Your task to perform on an android device: turn off improve location accuracy Image 0: 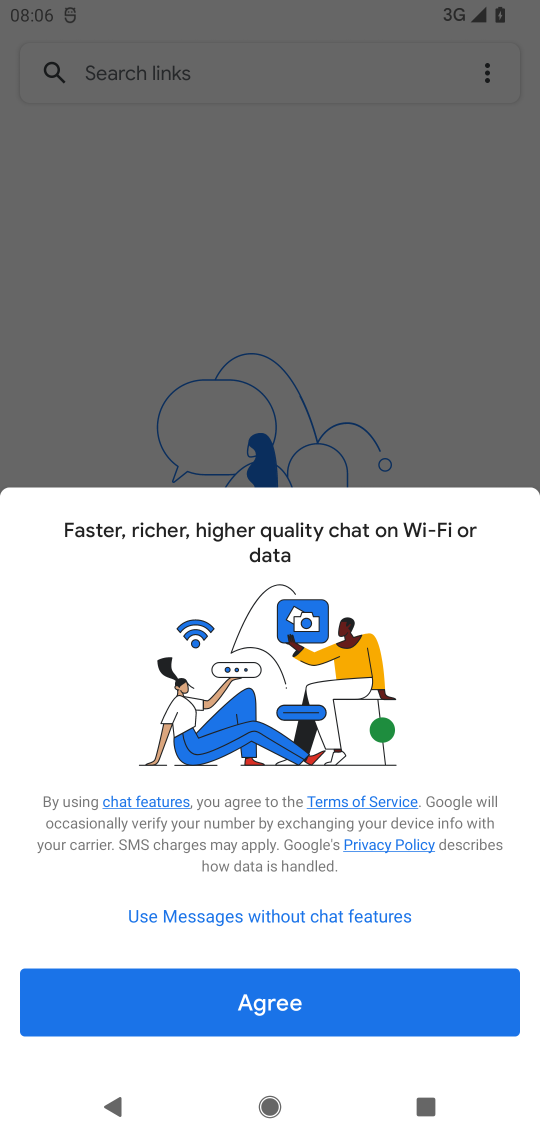
Step 0: press home button
Your task to perform on an android device: turn off improve location accuracy Image 1: 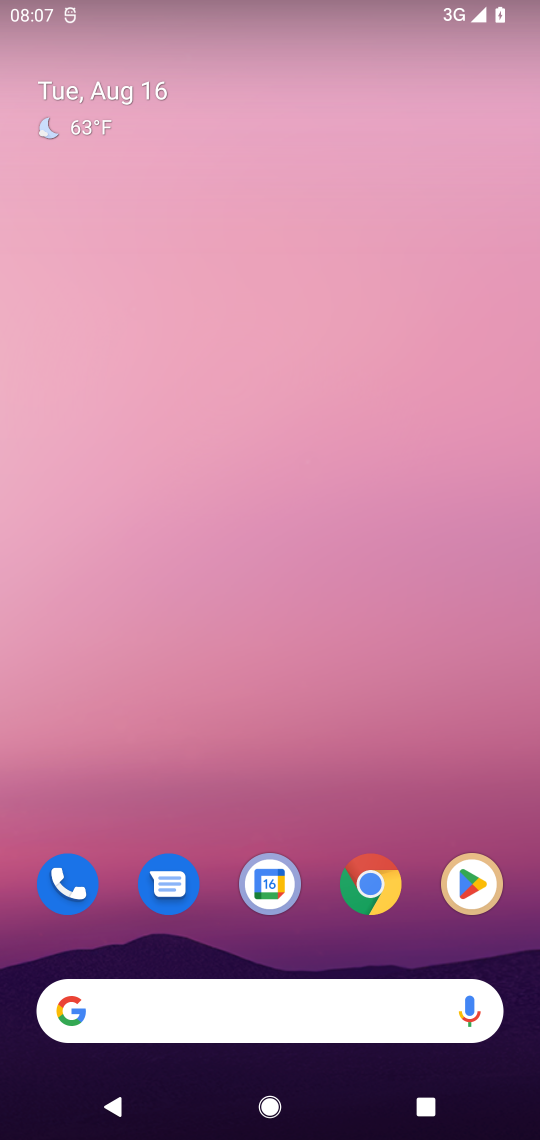
Step 1: drag from (417, 822) to (326, 169)
Your task to perform on an android device: turn off improve location accuracy Image 2: 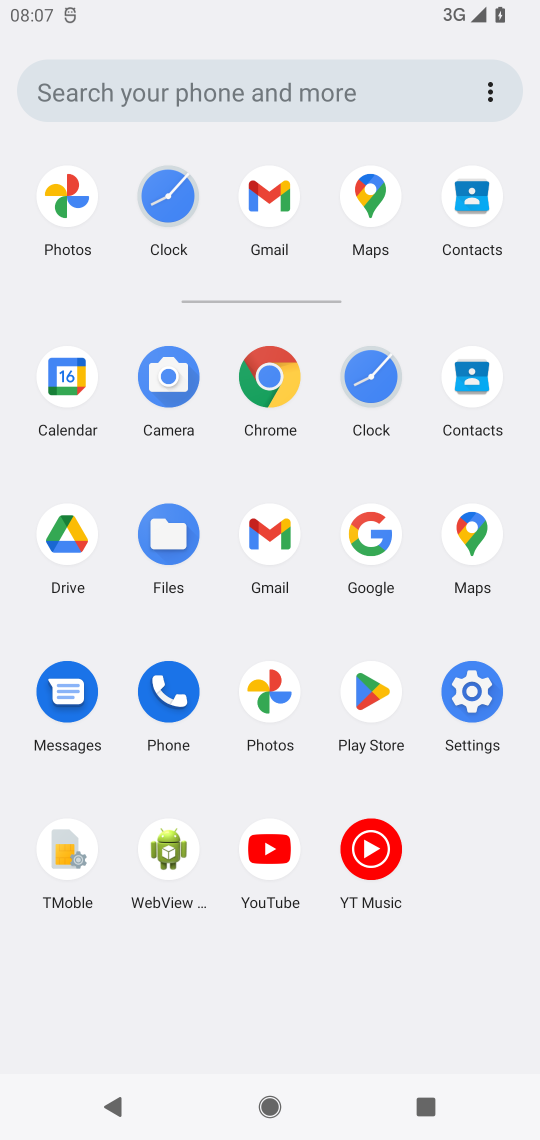
Step 2: click (466, 678)
Your task to perform on an android device: turn off improve location accuracy Image 3: 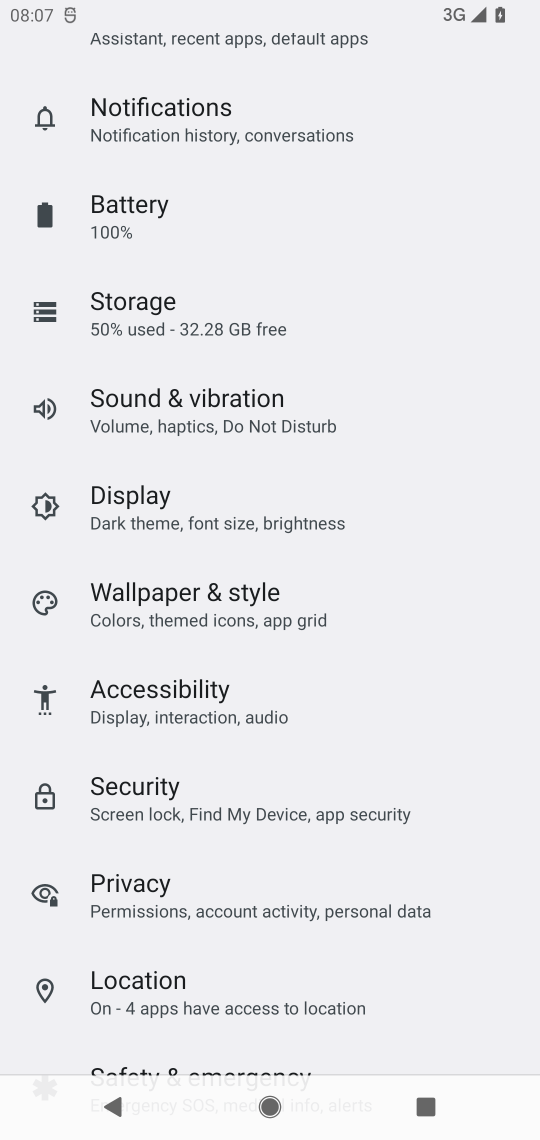
Step 3: click (226, 978)
Your task to perform on an android device: turn off improve location accuracy Image 4: 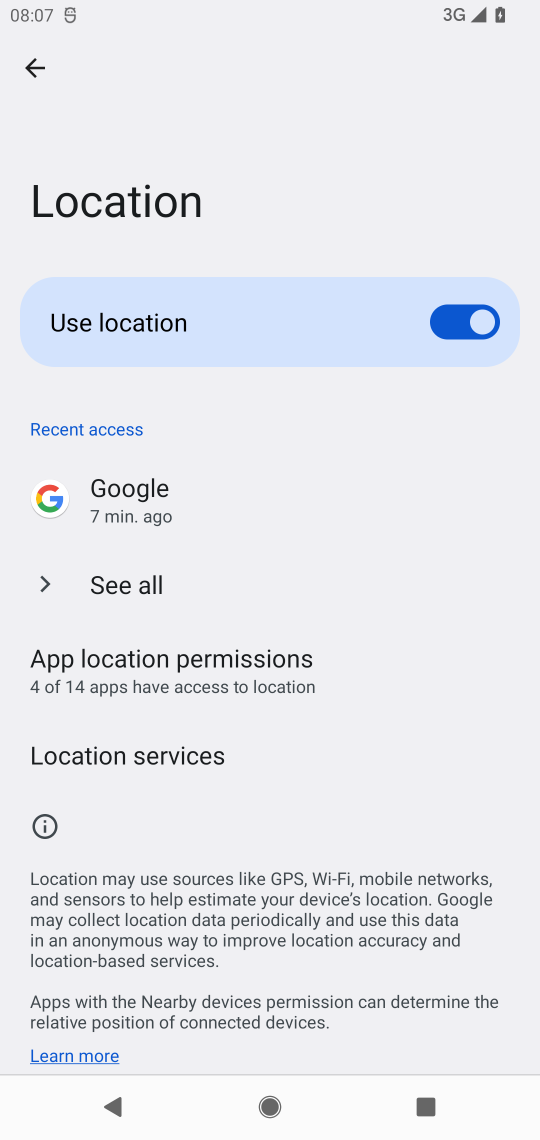
Step 4: click (122, 750)
Your task to perform on an android device: turn off improve location accuracy Image 5: 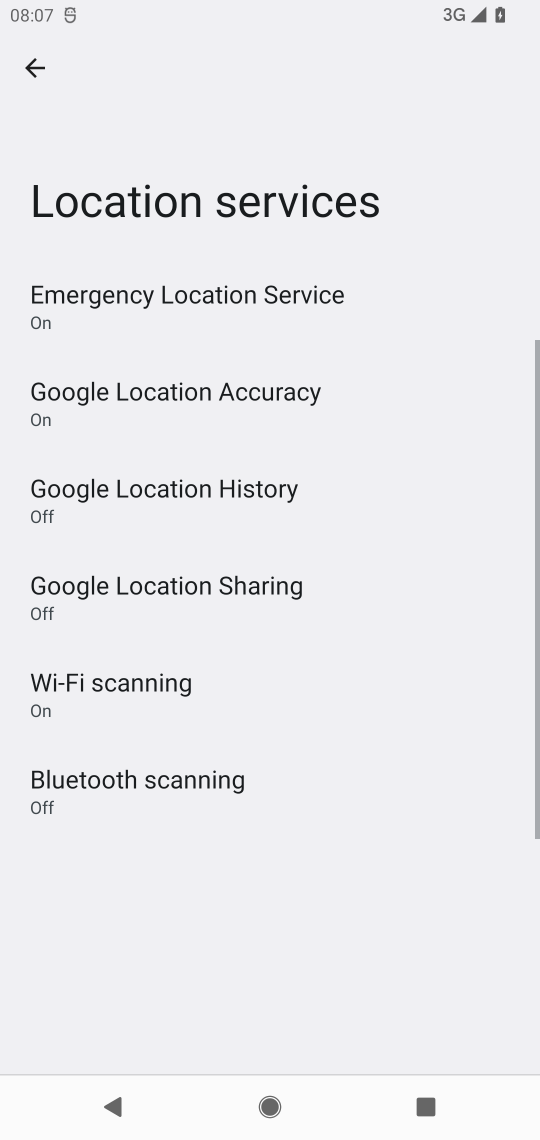
Step 5: click (263, 400)
Your task to perform on an android device: turn off improve location accuracy Image 6: 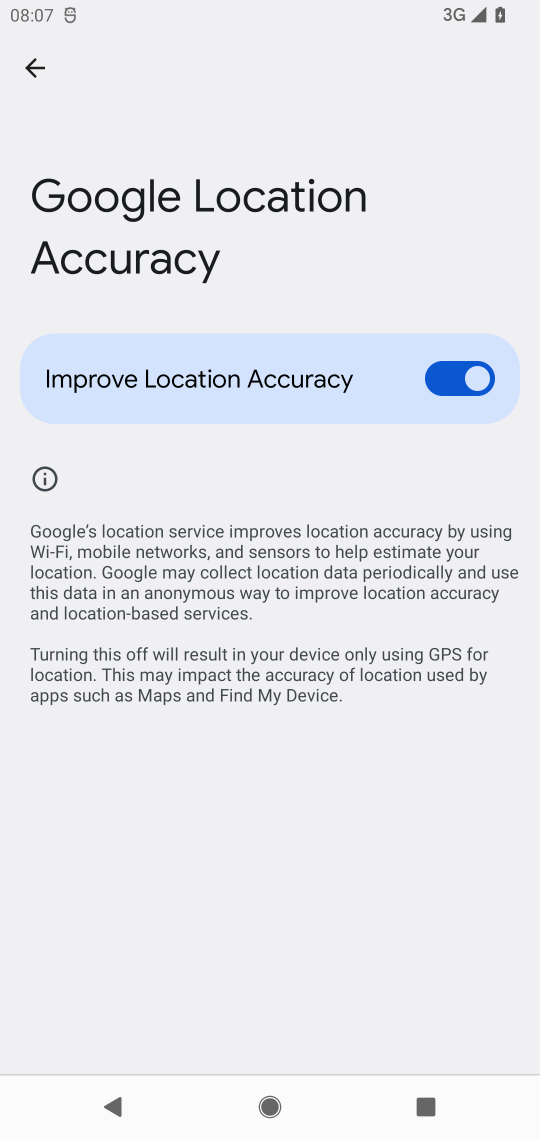
Step 6: click (464, 388)
Your task to perform on an android device: turn off improve location accuracy Image 7: 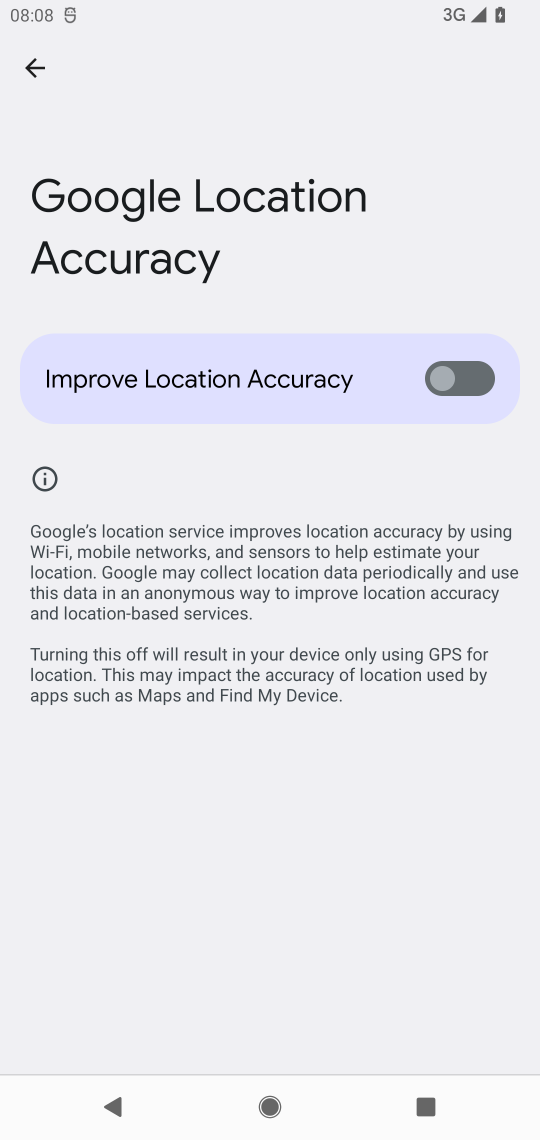
Step 7: task complete